Your task to perform on an android device: toggle data saver in the chrome app Image 0: 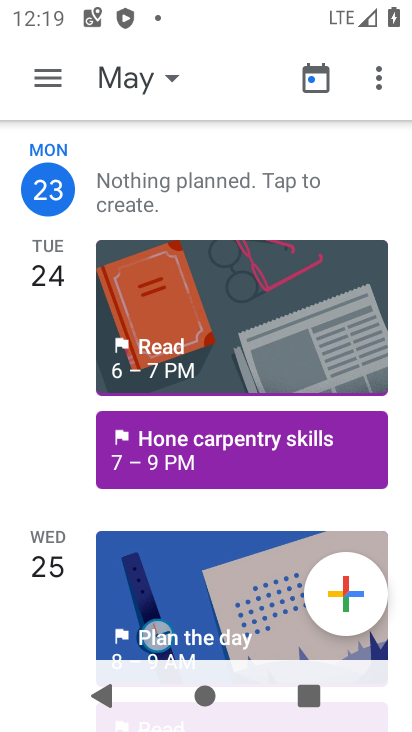
Step 0: press home button
Your task to perform on an android device: toggle data saver in the chrome app Image 1: 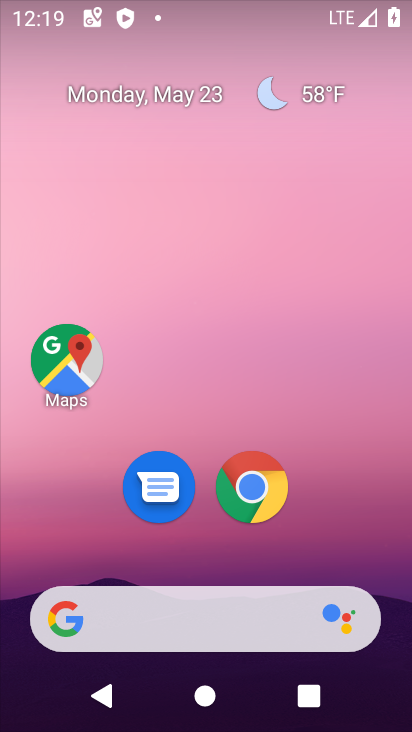
Step 1: click (253, 491)
Your task to perform on an android device: toggle data saver in the chrome app Image 2: 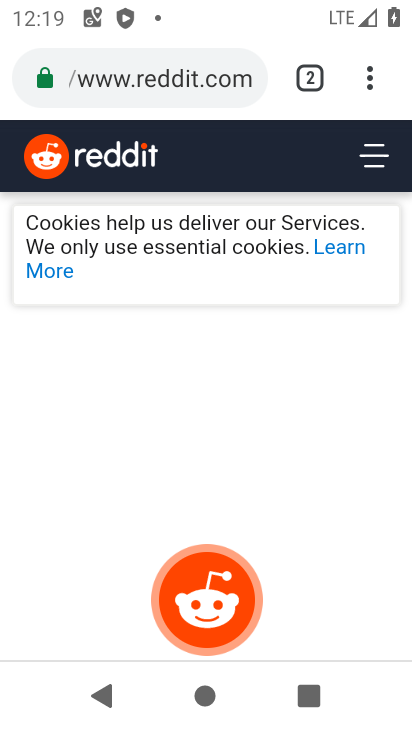
Step 2: click (368, 80)
Your task to perform on an android device: toggle data saver in the chrome app Image 3: 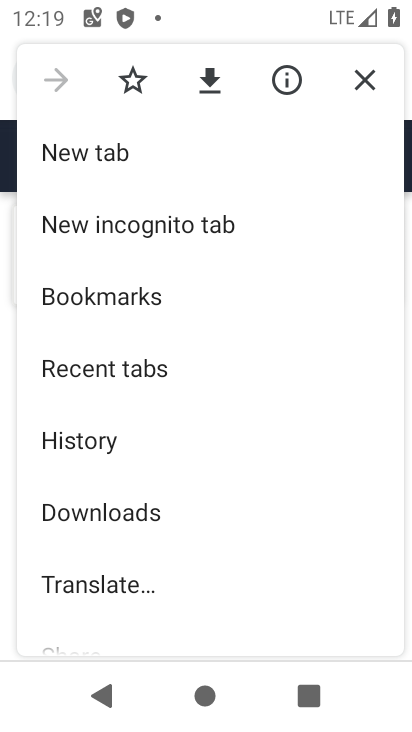
Step 3: drag from (161, 534) to (251, 169)
Your task to perform on an android device: toggle data saver in the chrome app Image 4: 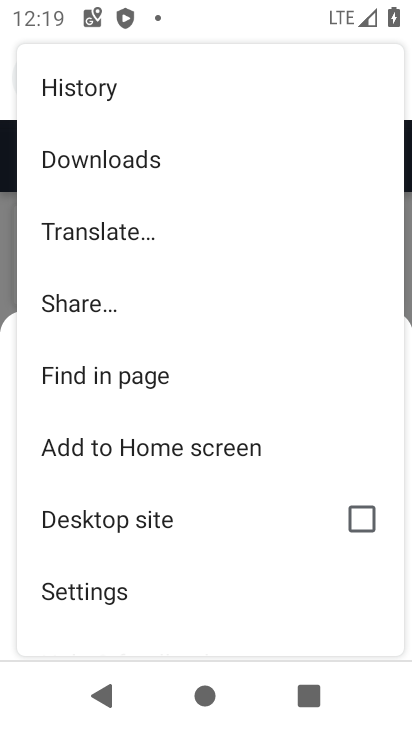
Step 4: click (84, 581)
Your task to perform on an android device: toggle data saver in the chrome app Image 5: 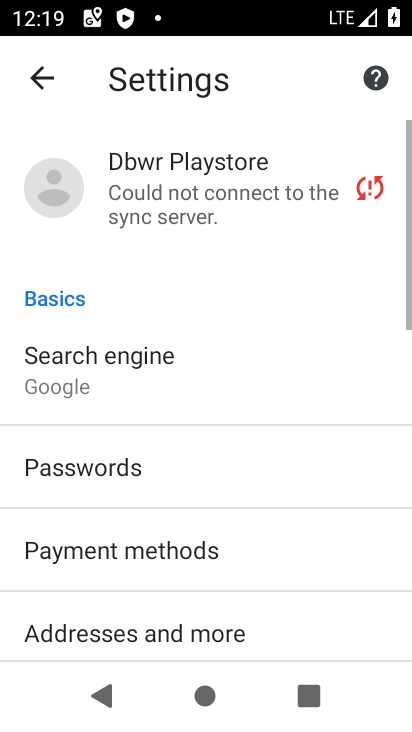
Step 5: drag from (331, 582) to (260, 78)
Your task to perform on an android device: toggle data saver in the chrome app Image 6: 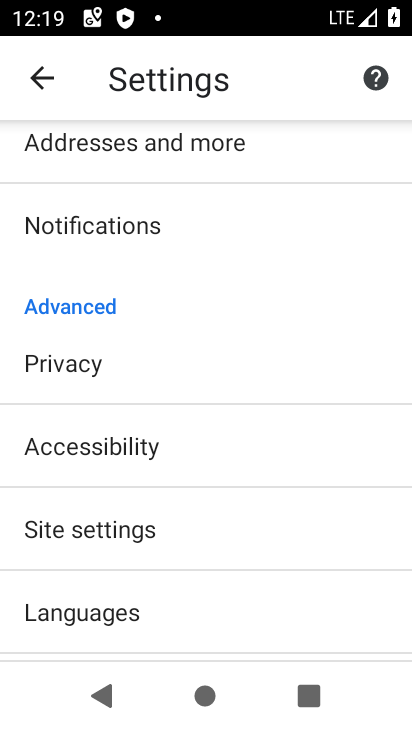
Step 6: drag from (118, 580) to (186, 364)
Your task to perform on an android device: toggle data saver in the chrome app Image 7: 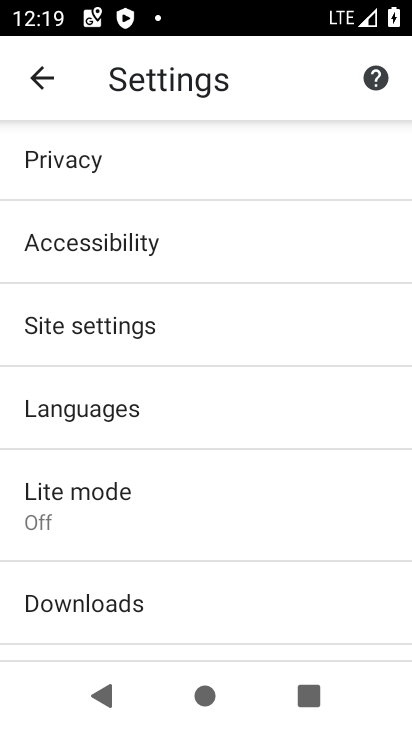
Step 7: click (30, 521)
Your task to perform on an android device: toggle data saver in the chrome app Image 8: 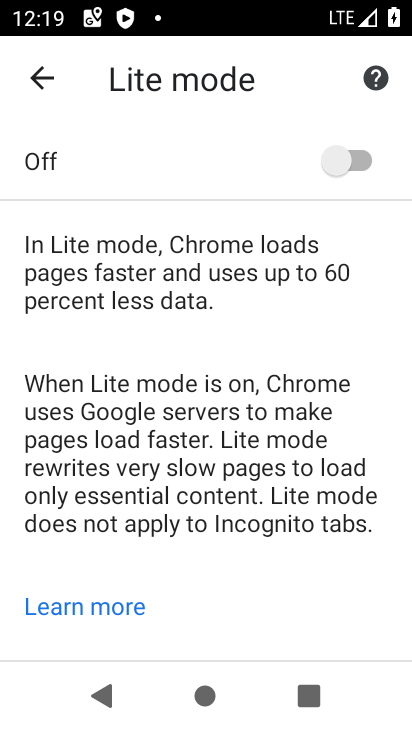
Step 8: click (363, 154)
Your task to perform on an android device: toggle data saver in the chrome app Image 9: 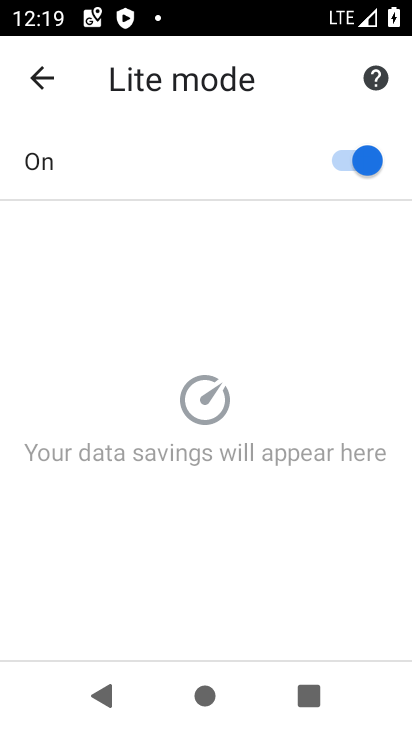
Step 9: task complete